Your task to perform on an android device: toggle pop-ups in chrome Image 0: 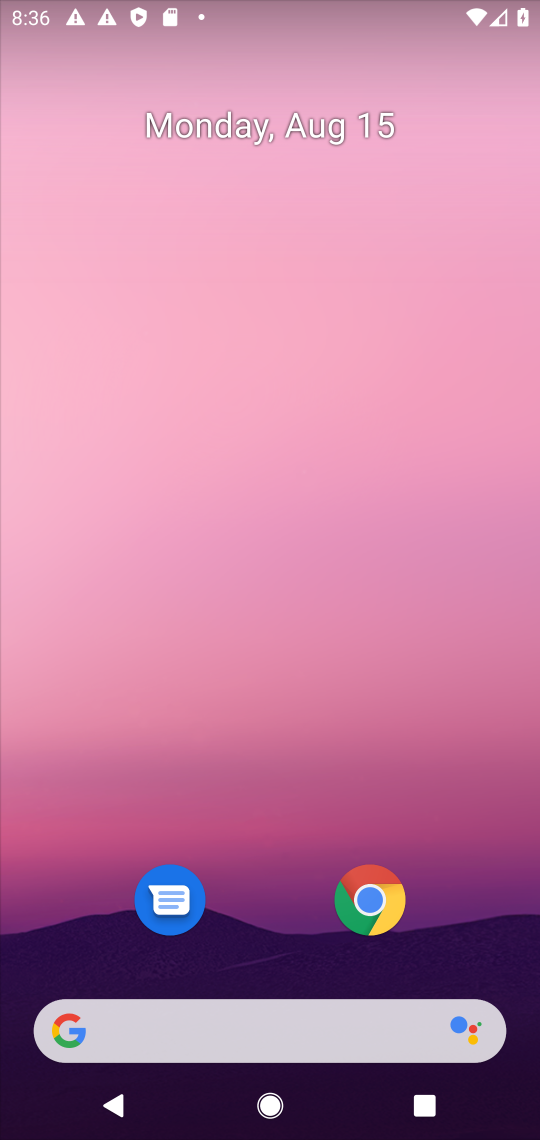
Step 0: click (380, 894)
Your task to perform on an android device: toggle pop-ups in chrome Image 1: 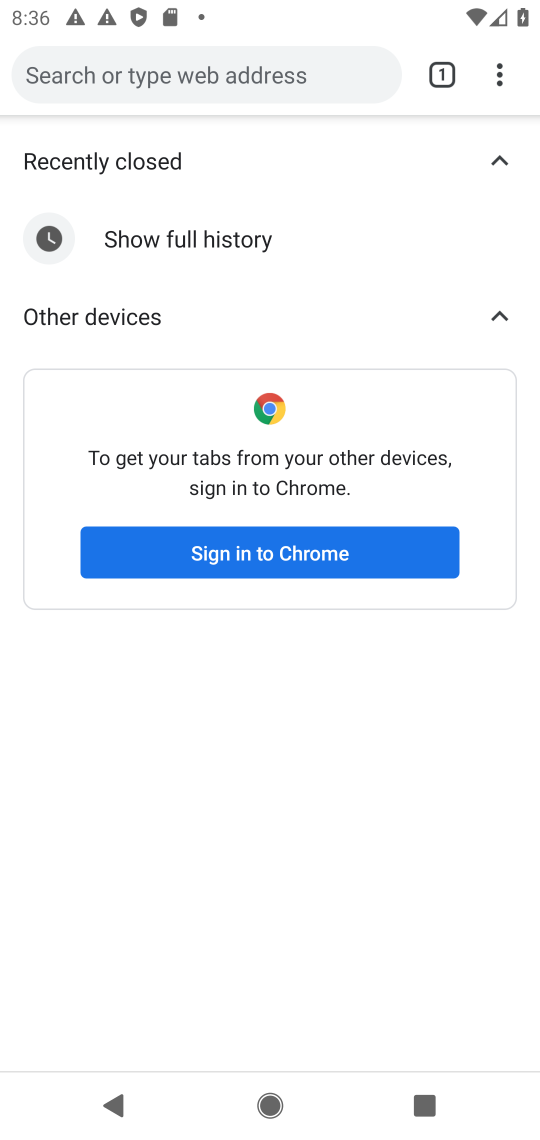
Step 1: click (515, 68)
Your task to perform on an android device: toggle pop-ups in chrome Image 2: 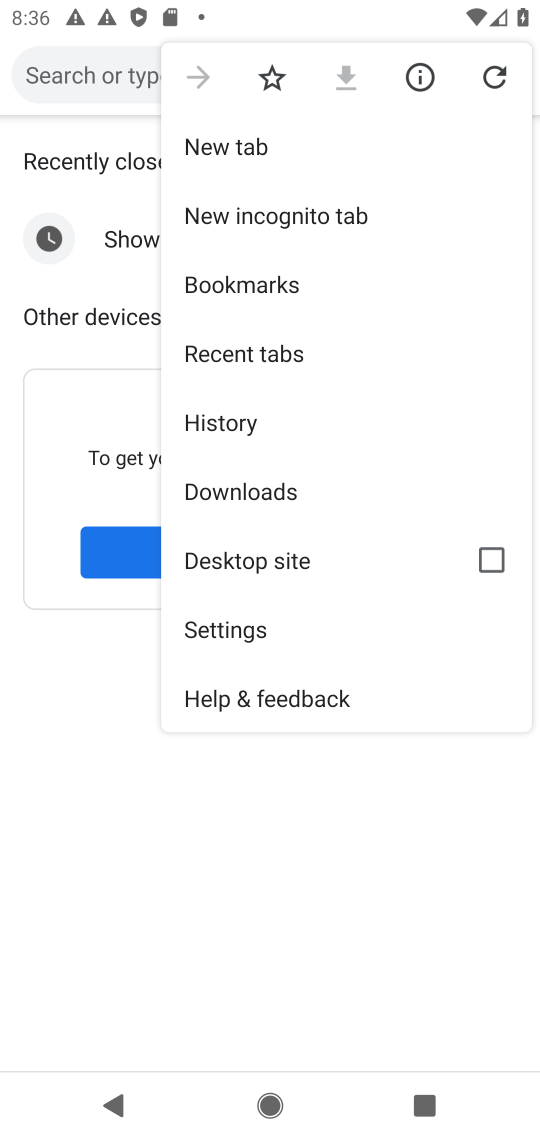
Step 2: click (281, 629)
Your task to perform on an android device: toggle pop-ups in chrome Image 3: 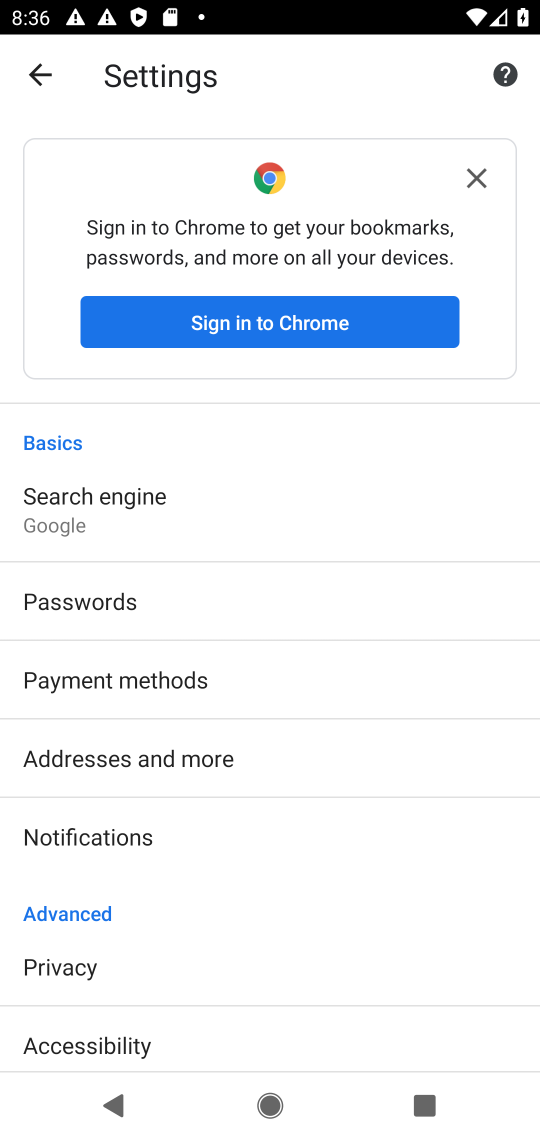
Step 3: drag from (332, 944) to (146, 488)
Your task to perform on an android device: toggle pop-ups in chrome Image 4: 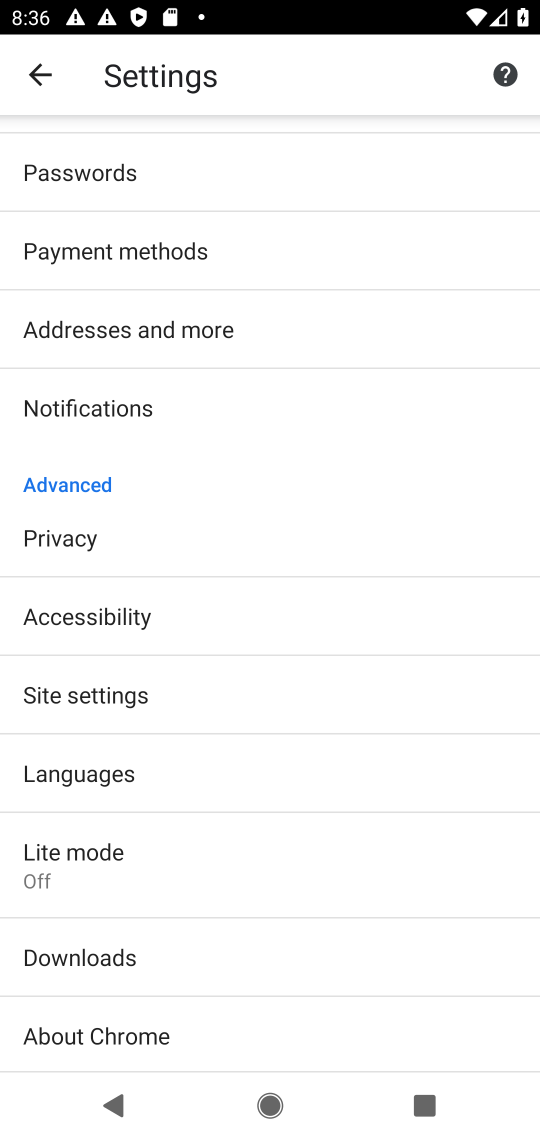
Step 4: click (194, 686)
Your task to perform on an android device: toggle pop-ups in chrome Image 5: 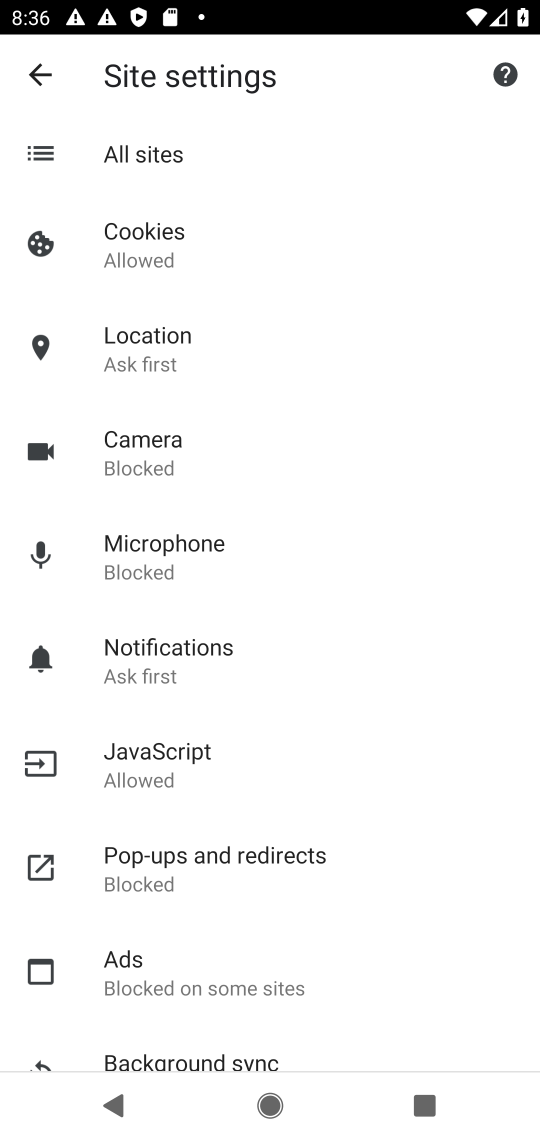
Step 5: click (166, 875)
Your task to perform on an android device: toggle pop-ups in chrome Image 6: 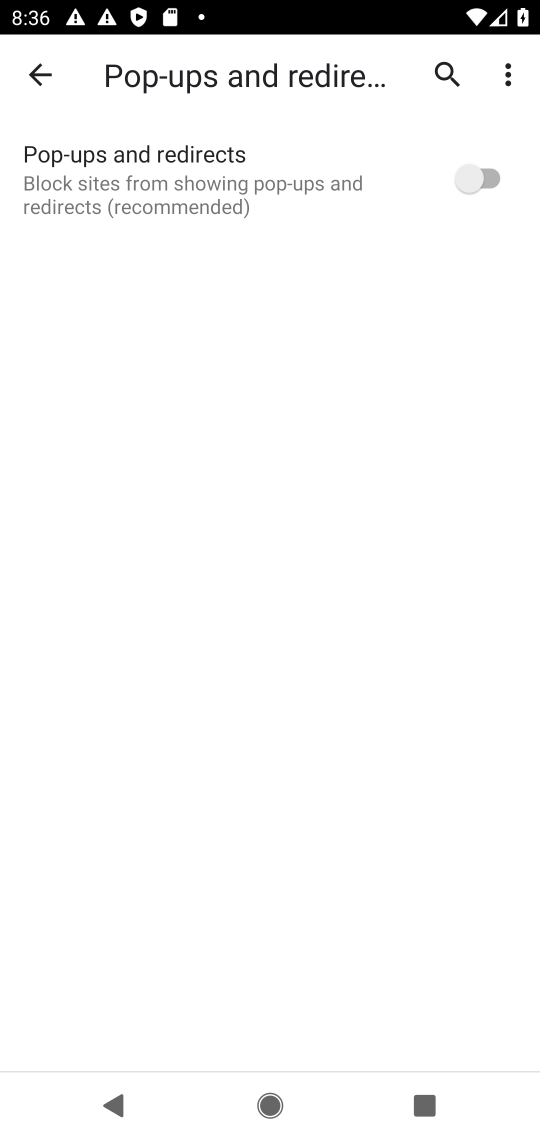
Step 6: click (475, 181)
Your task to perform on an android device: toggle pop-ups in chrome Image 7: 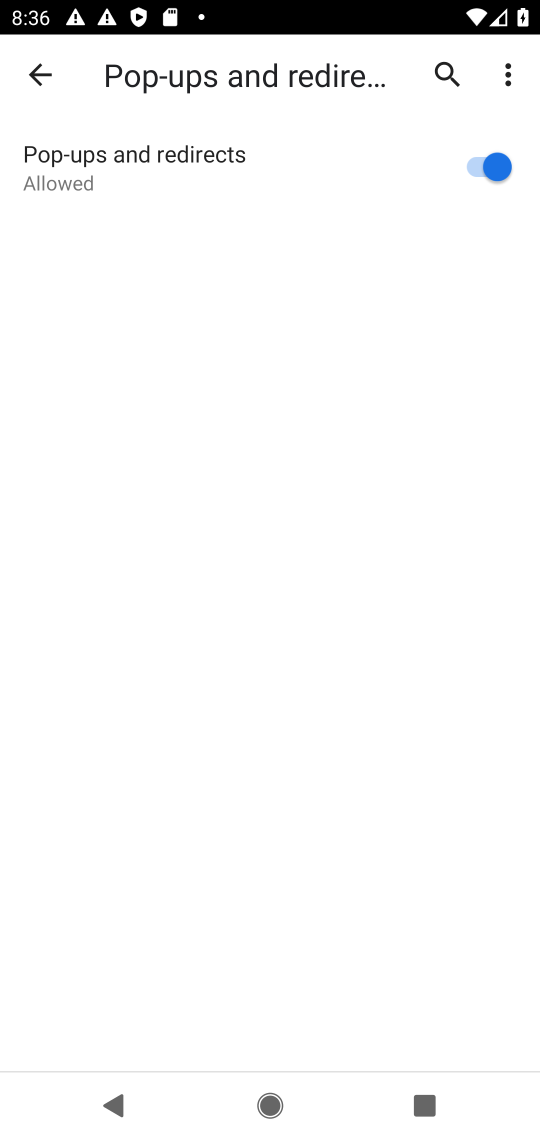
Step 7: task complete